Your task to perform on an android device: Open calendar and show me the first week of next month Image 0: 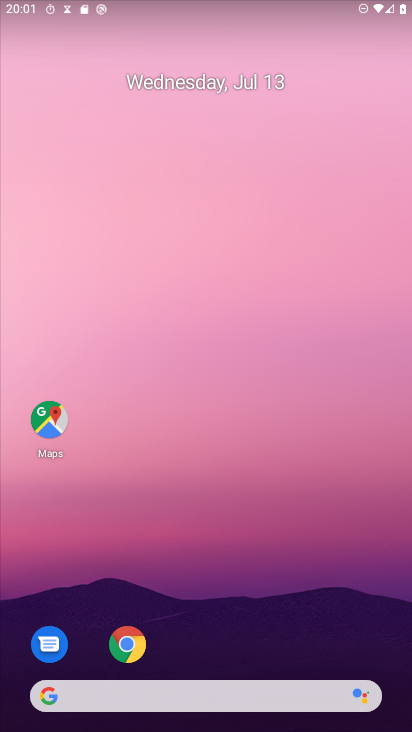
Step 0: drag from (319, 576) to (313, 75)
Your task to perform on an android device: Open calendar and show me the first week of next month Image 1: 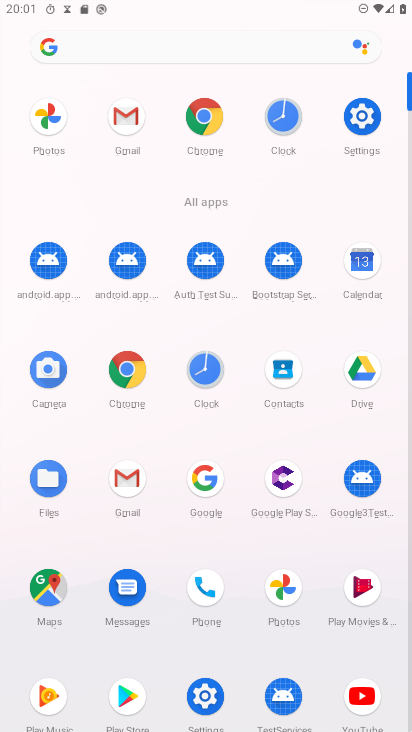
Step 1: click (360, 254)
Your task to perform on an android device: Open calendar and show me the first week of next month Image 2: 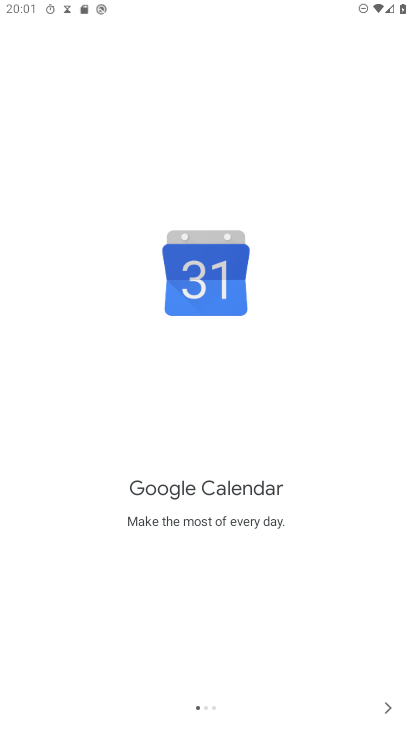
Step 2: click (394, 706)
Your task to perform on an android device: Open calendar and show me the first week of next month Image 3: 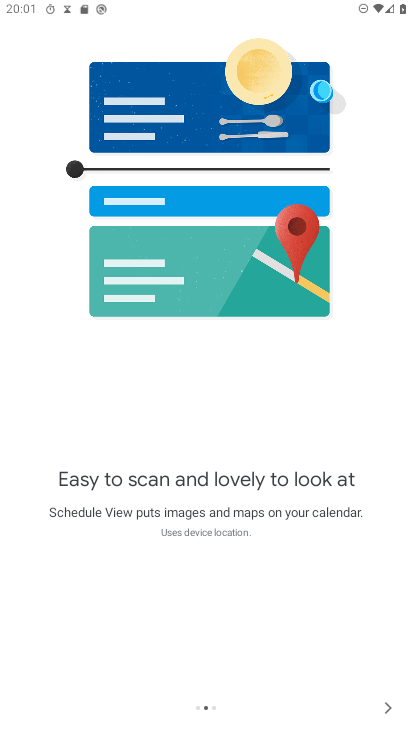
Step 3: click (394, 706)
Your task to perform on an android device: Open calendar and show me the first week of next month Image 4: 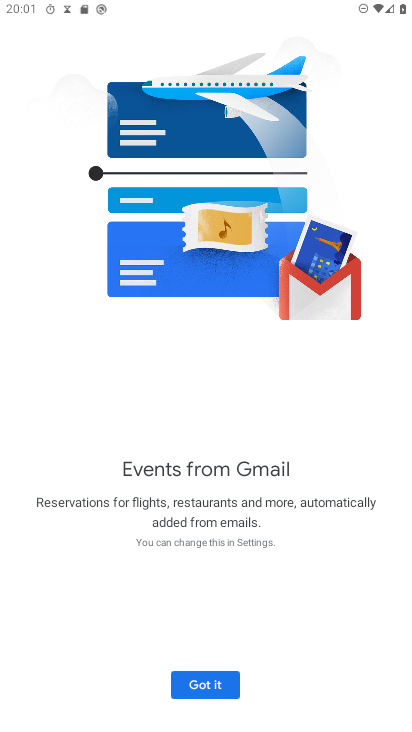
Step 4: click (221, 687)
Your task to perform on an android device: Open calendar and show me the first week of next month Image 5: 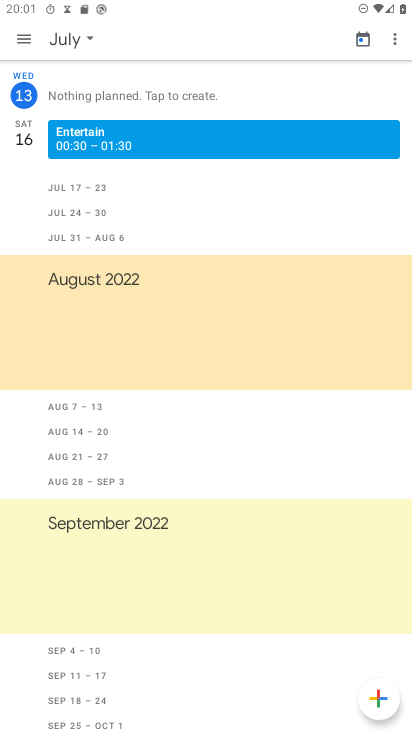
Step 5: click (72, 34)
Your task to perform on an android device: Open calendar and show me the first week of next month Image 6: 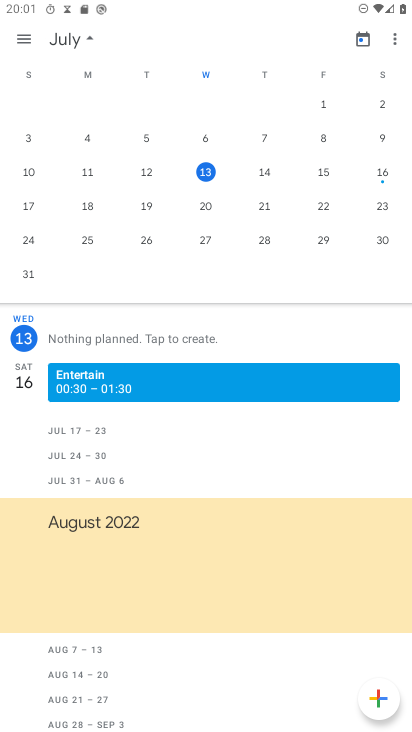
Step 6: task complete